Your task to perform on an android device: Search for amazon basics triple a on costco, select the first entry, and add it to the cart. Image 0: 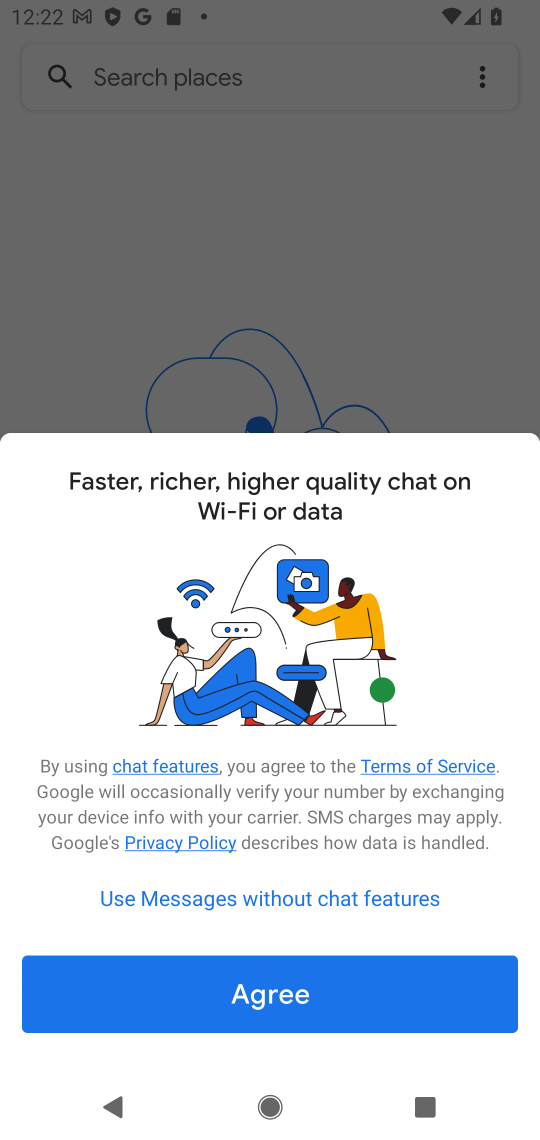
Step 0: press home button
Your task to perform on an android device: Search for amazon basics triple a on costco, select the first entry, and add it to the cart. Image 1: 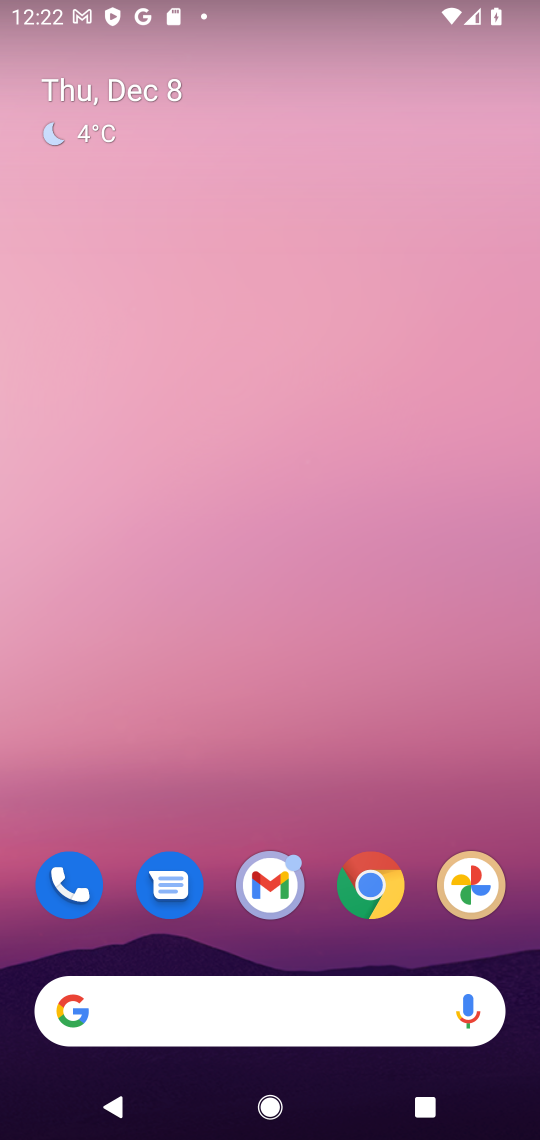
Step 1: click (366, 869)
Your task to perform on an android device: Search for amazon basics triple a on costco, select the first entry, and add it to the cart. Image 2: 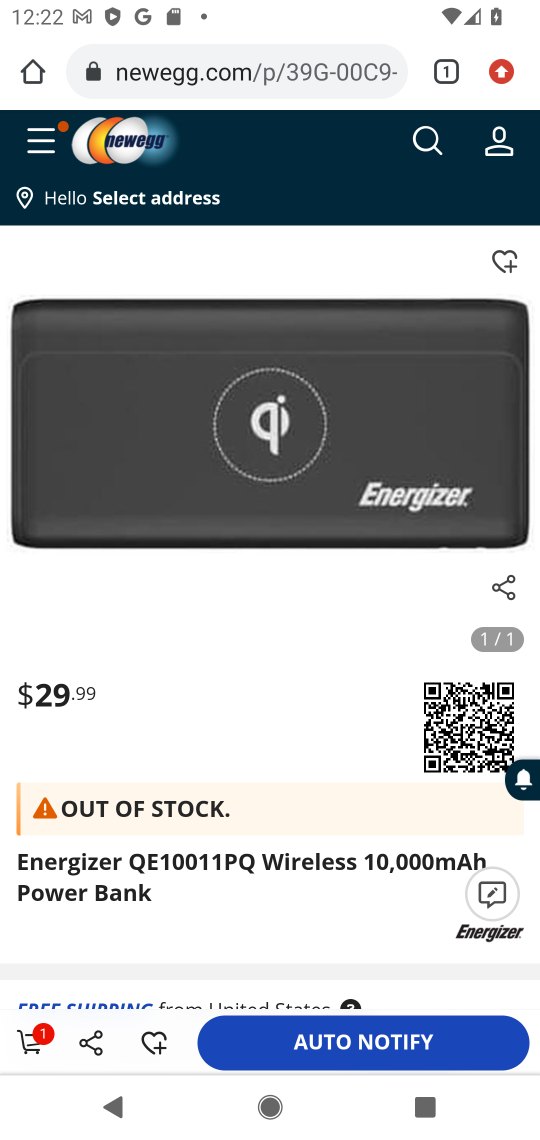
Step 2: click (274, 62)
Your task to perform on an android device: Search for amazon basics triple a on costco, select the first entry, and add it to the cart. Image 3: 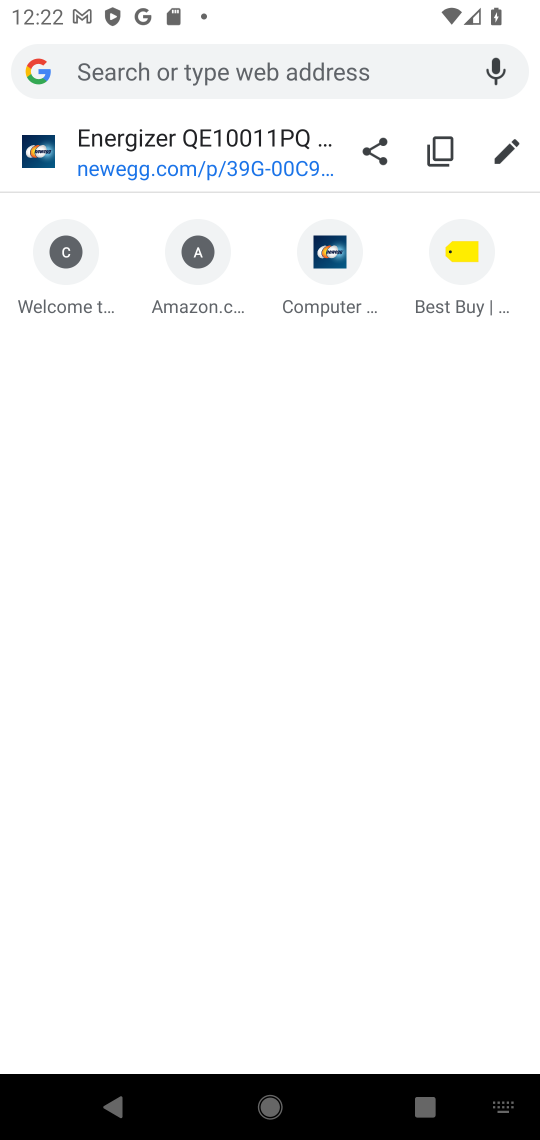
Step 3: type "COSTCO"
Your task to perform on an android device: Search for amazon basics triple a on costco, select the first entry, and add it to the cart. Image 4: 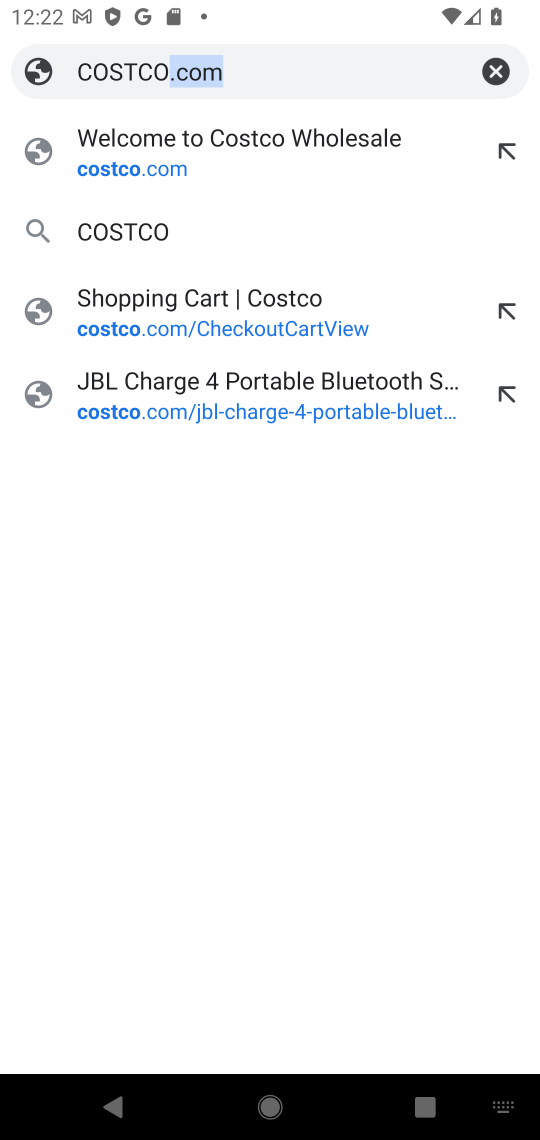
Step 4: click (208, 159)
Your task to perform on an android device: Search for amazon basics triple a on costco, select the first entry, and add it to the cart. Image 5: 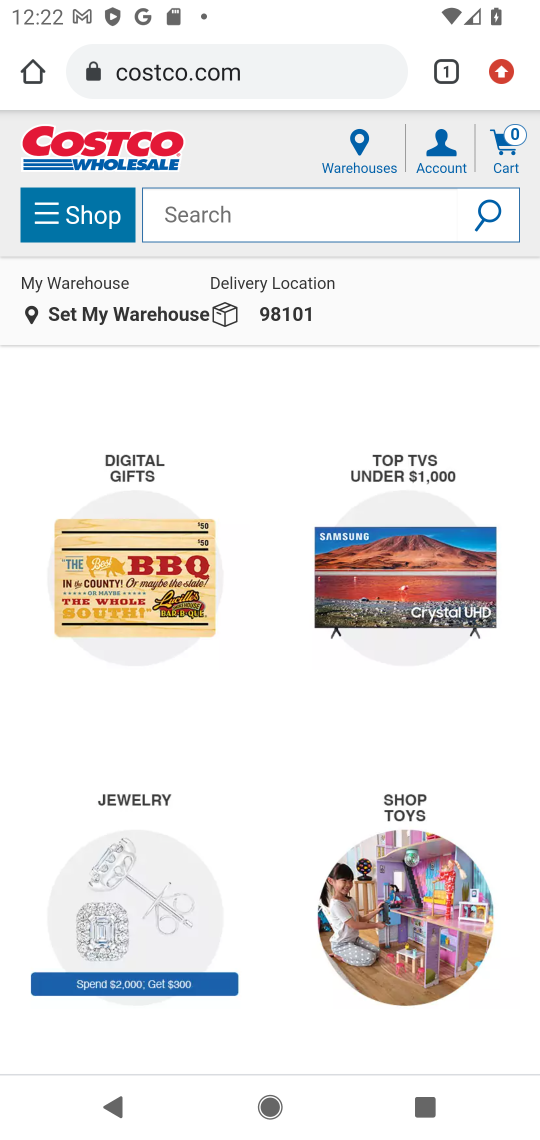
Step 5: click (255, 214)
Your task to perform on an android device: Search for amazon basics triple a on costco, select the first entry, and add it to the cart. Image 6: 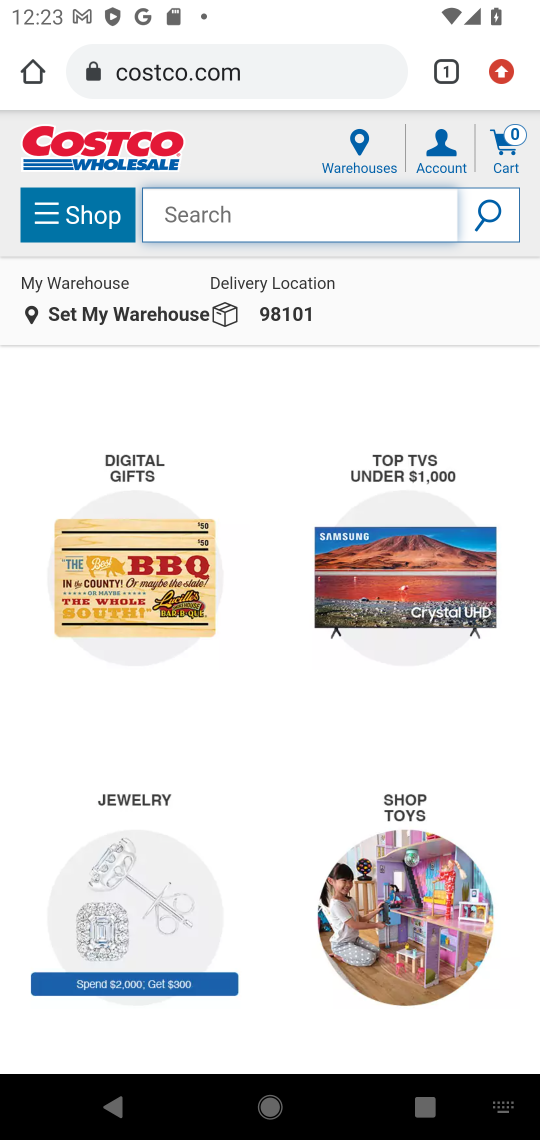
Step 6: type "AMAZON BASICS TRIPLE "
Your task to perform on an android device: Search for amazon basics triple a on costco, select the first entry, and add it to the cart. Image 7: 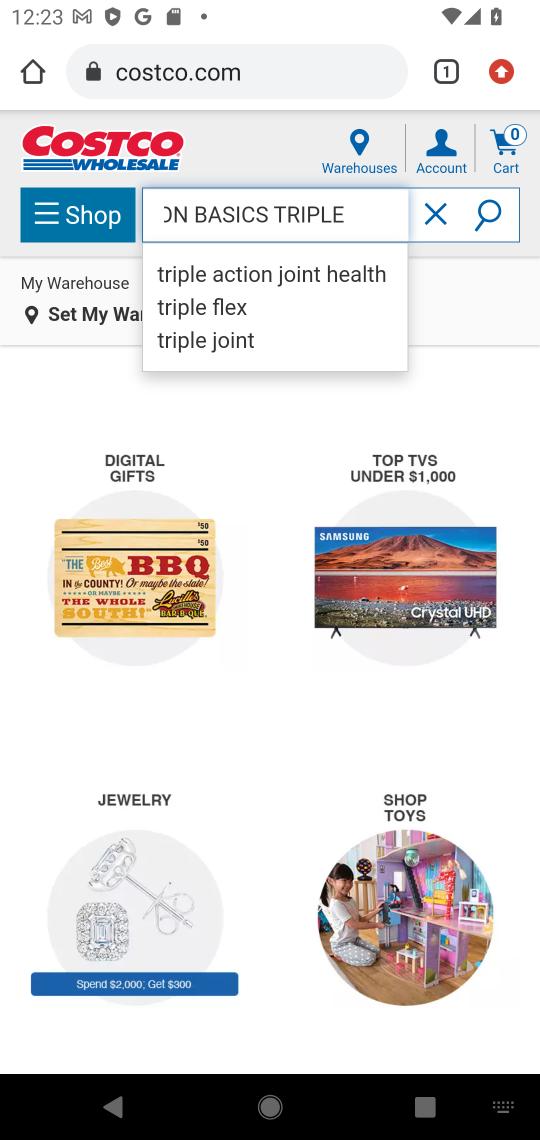
Step 7: click (272, 278)
Your task to perform on an android device: Search for amazon basics triple a on costco, select the first entry, and add it to the cart. Image 8: 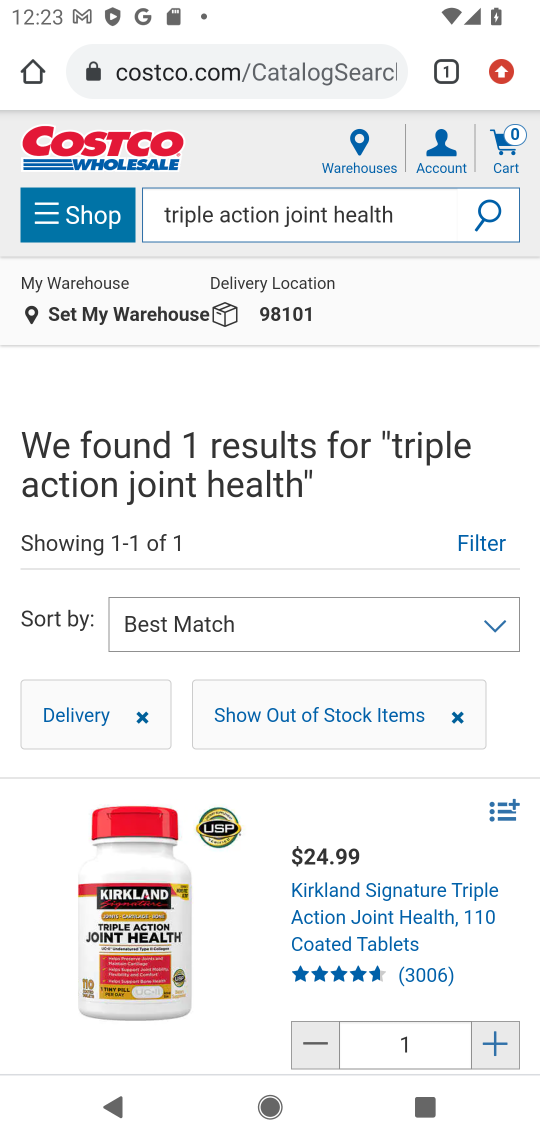
Step 8: click (154, 939)
Your task to perform on an android device: Search for amazon basics triple a on costco, select the first entry, and add it to the cart. Image 9: 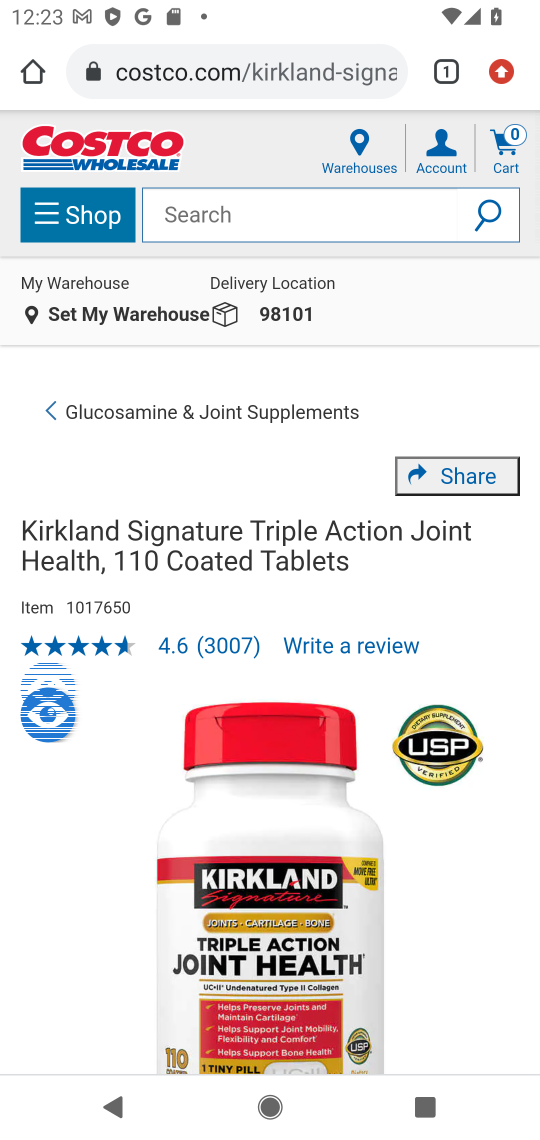
Step 9: drag from (342, 892) to (367, 285)
Your task to perform on an android device: Search for amazon basics triple a on costco, select the first entry, and add it to the cart. Image 10: 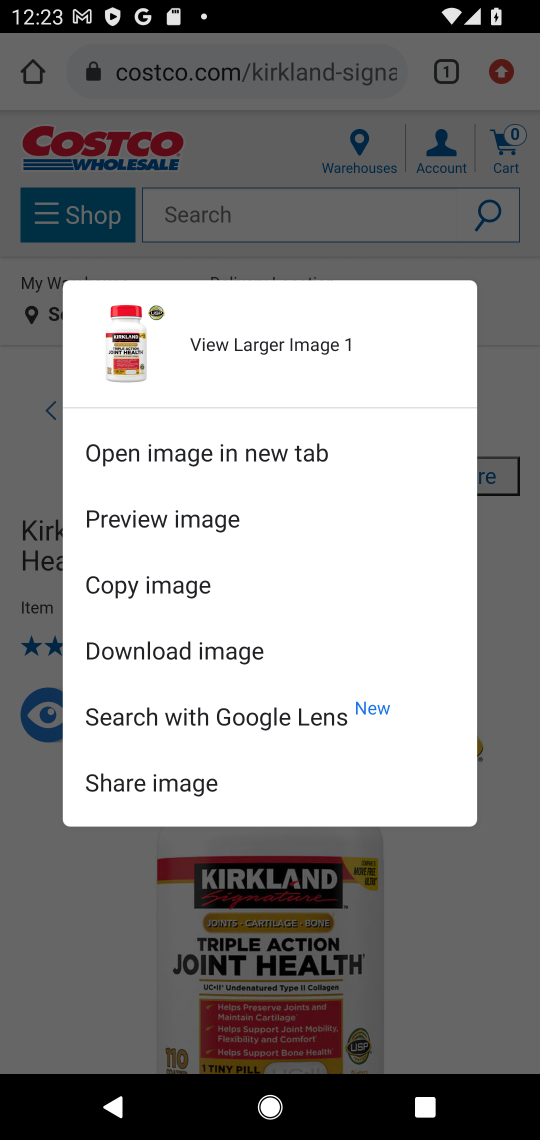
Step 10: click (508, 287)
Your task to perform on an android device: Search for amazon basics triple a on costco, select the first entry, and add it to the cart. Image 11: 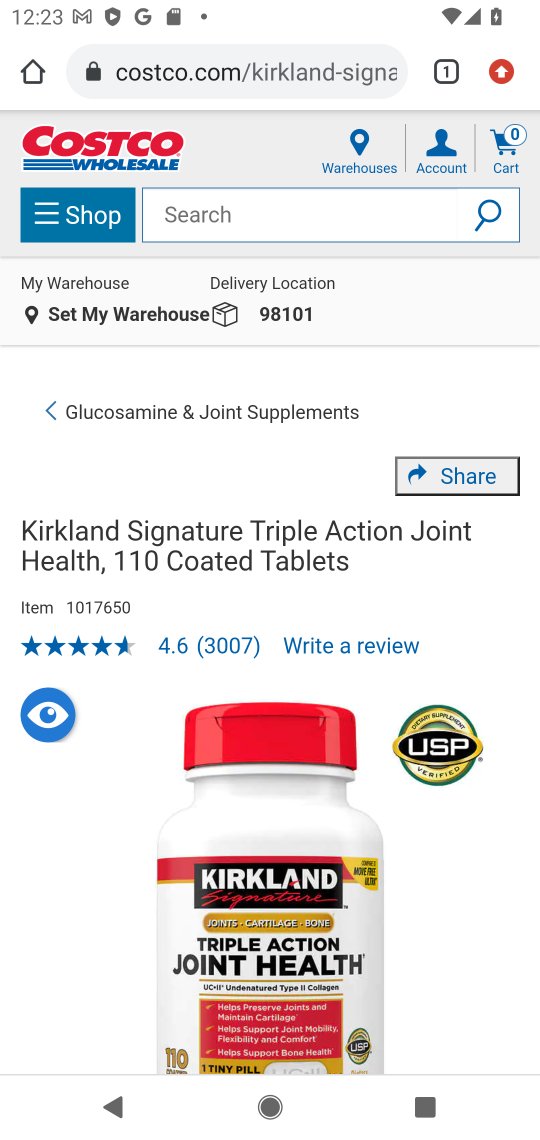
Step 11: drag from (479, 747) to (481, 172)
Your task to perform on an android device: Search for amazon basics triple a on costco, select the first entry, and add it to the cart. Image 12: 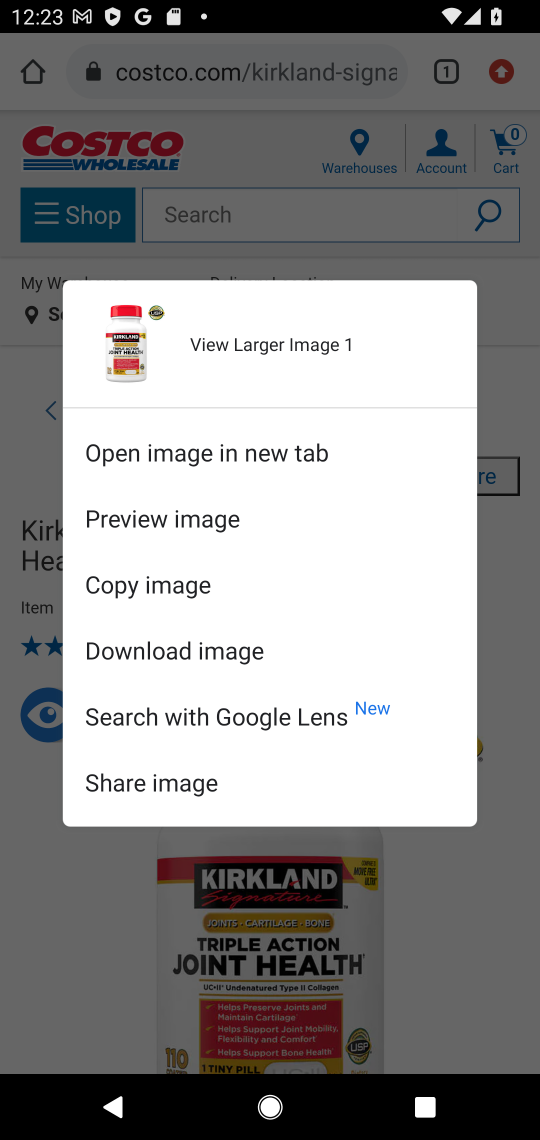
Step 12: click (500, 296)
Your task to perform on an android device: Search for amazon basics triple a on costco, select the first entry, and add it to the cart. Image 13: 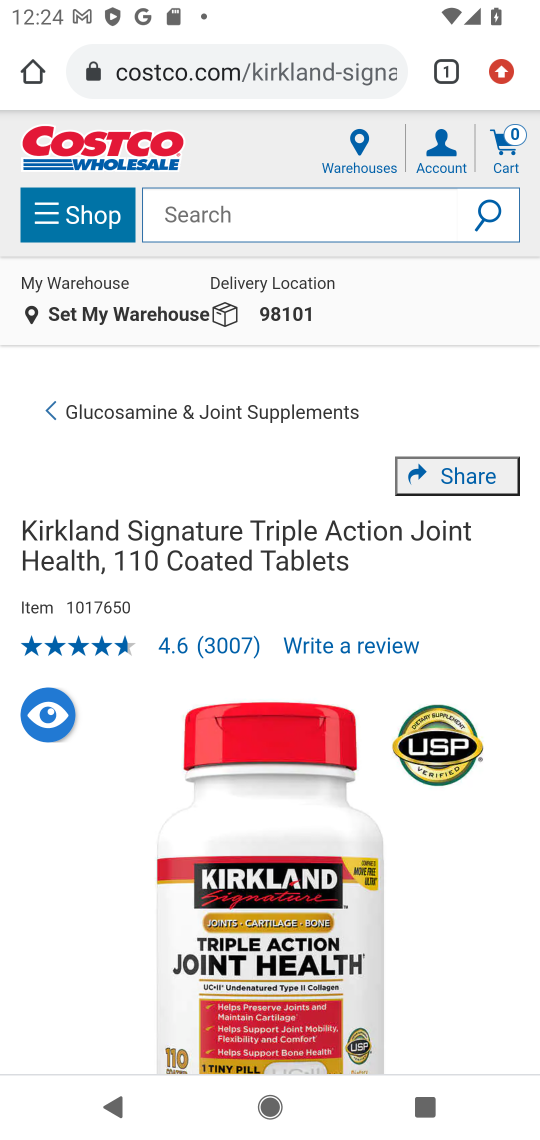
Step 13: drag from (494, 626) to (494, 215)
Your task to perform on an android device: Search for amazon basics triple a on costco, select the first entry, and add it to the cart. Image 14: 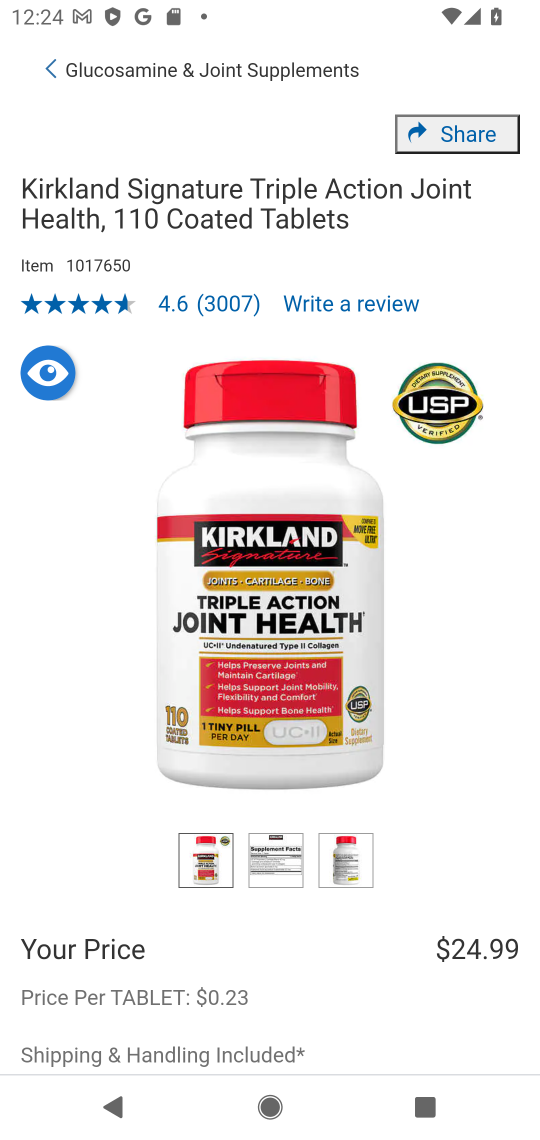
Step 14: drag from (457, 745) to (466, 203)
Your task to perform on an android device: Search for amazon basics triple a on costco, select the first entry, and add it to the cart. Image 15: 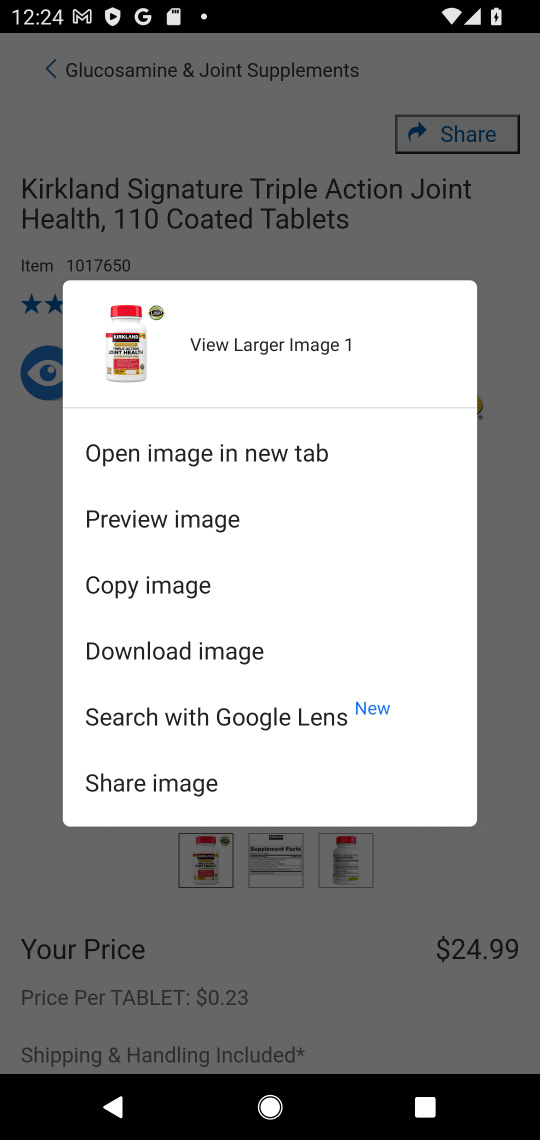
Step 15: click (475, 215)
Your task to perform on an android device: Search for amazon basics triple a on costco, select the first entry, and add it to the cart. Image 16: 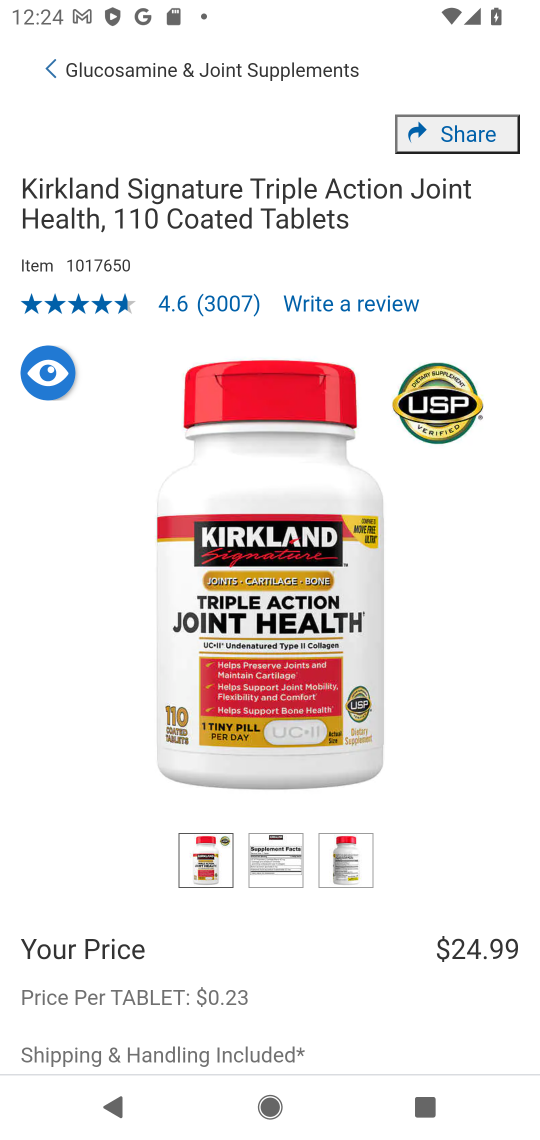
Step 16: drag from (481, 378) to (445, 56)
Your task to perform on an android device: Search for amazon basics triple a on costco, select the first entry, and add it to the cart. Image 17: 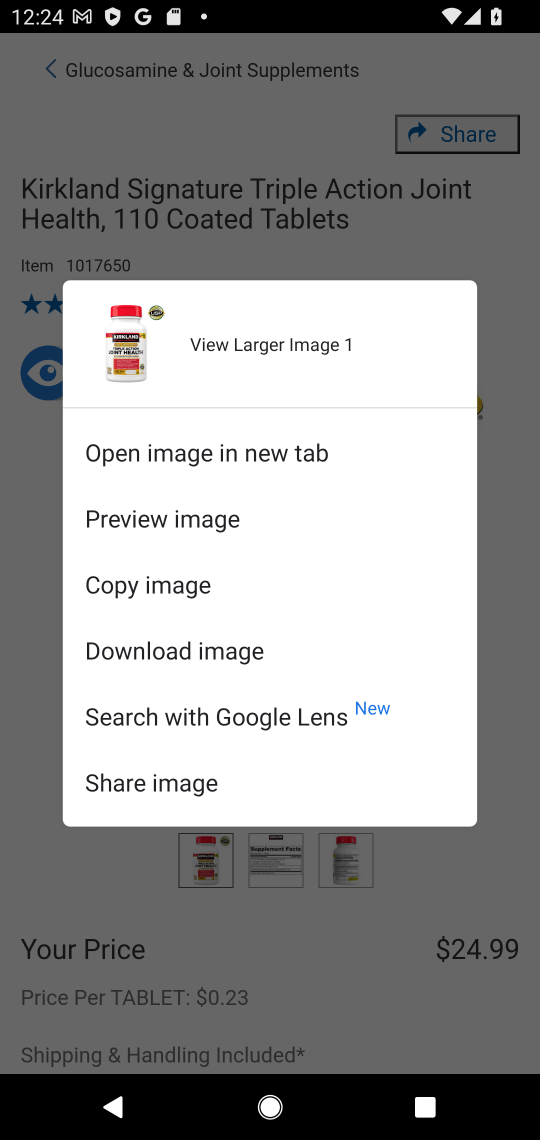
Step 17: click (473, 185)
Your task to perform on an android device: Search for amazon basics triple a on costco, select the first entry, and add it to the cart. Image 18: 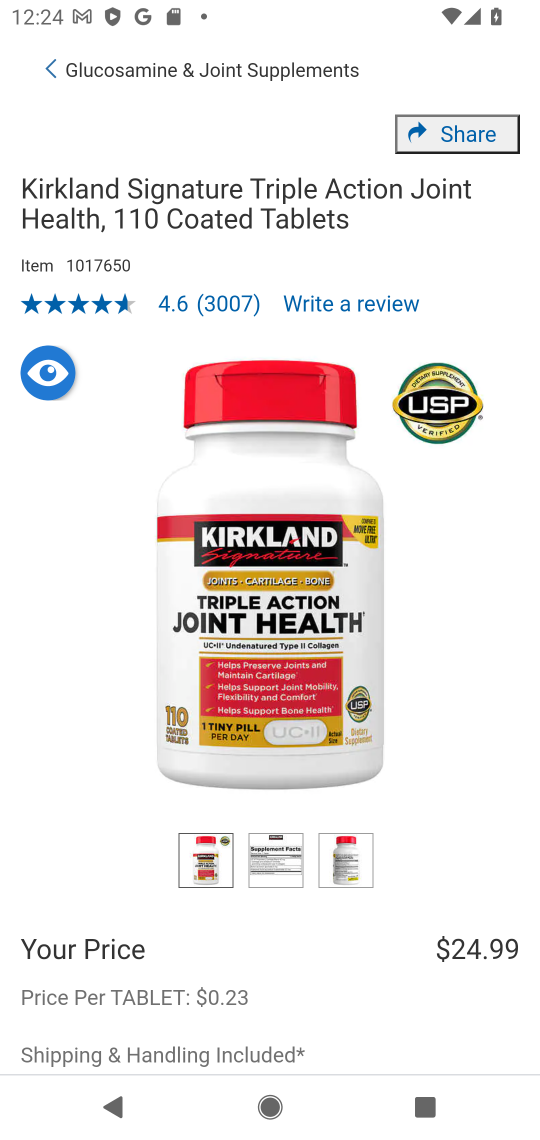
Step 18: drag from (372, 942) to (436, 108)
Your task to perform on an android device: Search for amazon basics triple a on costco, select the first entry, and add it to the cart. Image 19: 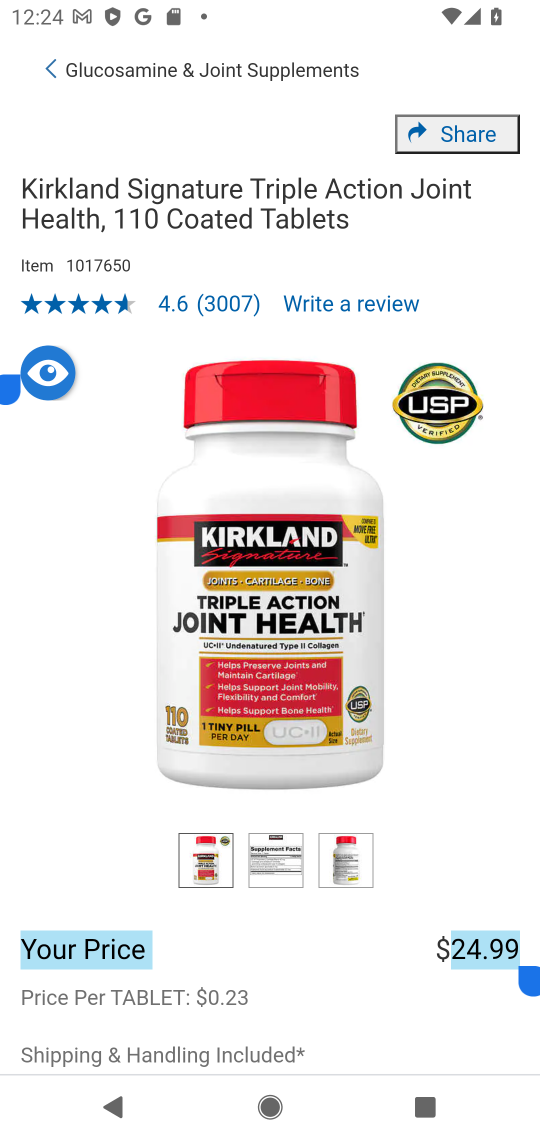
Step 19: click (484, 283)
Your task to perform on an android device: Search for amazon basics triple a on costco, select the first entry, and add it to the cart. Image 20: 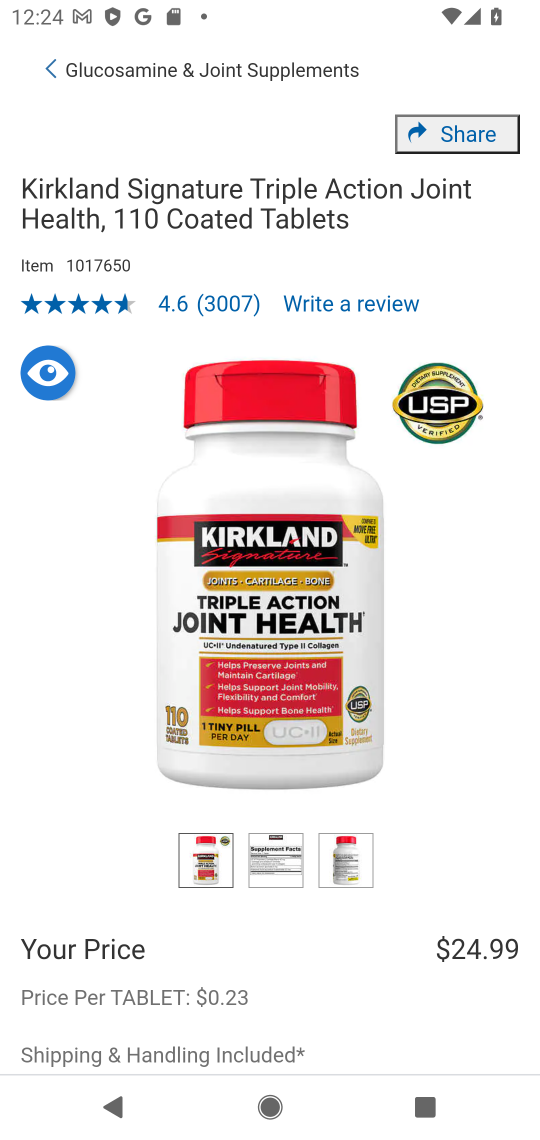
Step 20: drag from (353, 1005) to (362, 408)
Your task to perform on an android device: Search for amazon basics triple a on costco, select the first entry, and add it to the cart. Image 21: 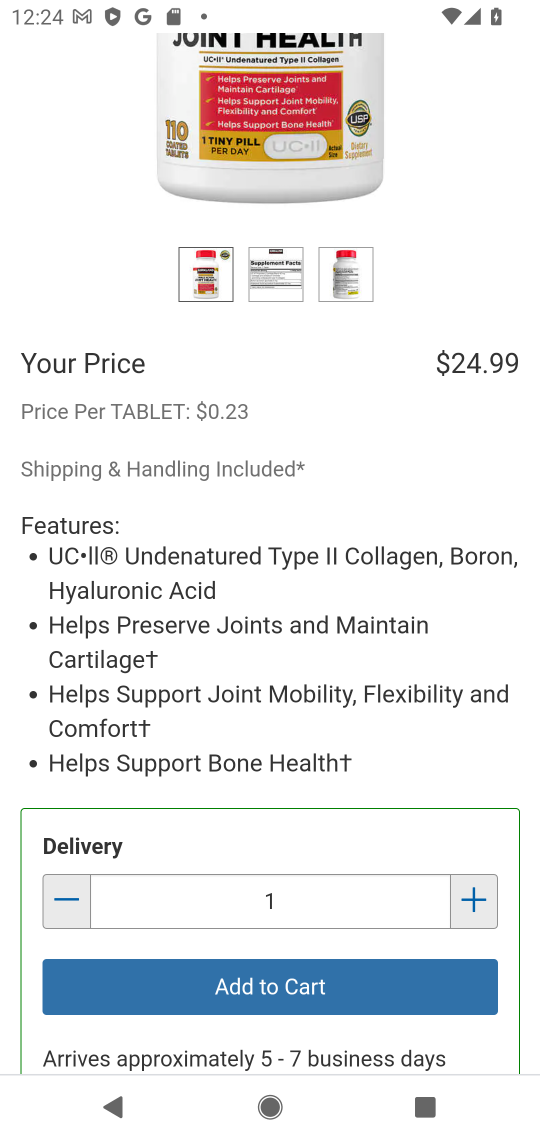
Step 21: click (303, 993)
Your task to perform on an android device: Search for amazon basics triple a on costco, select the first entry, and add it to the cart. Image 22: 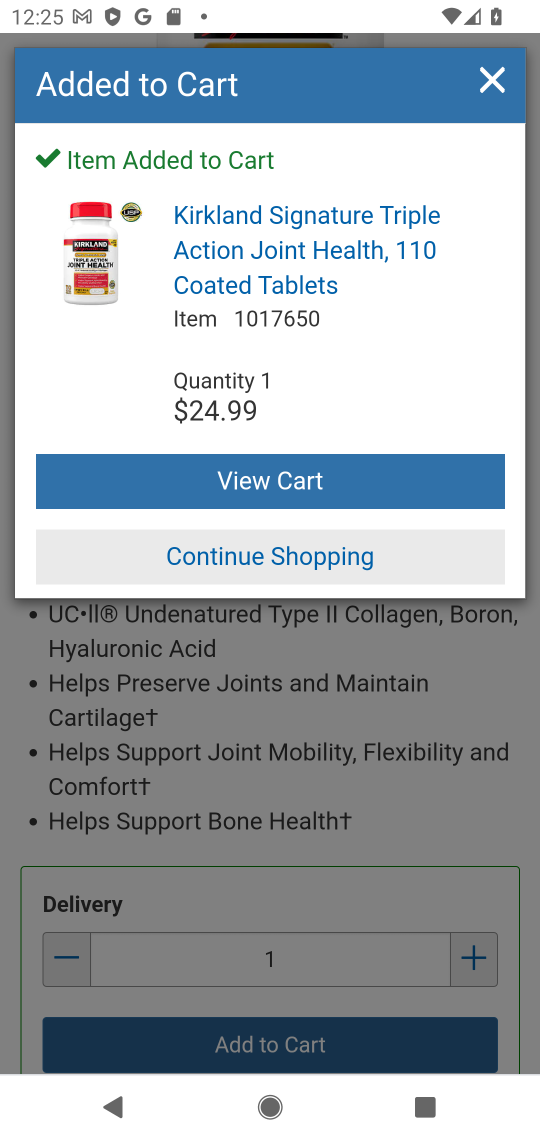
Step 22: click (483, 91)
Your task to perform on an android device: Search for amazon basics triple a on costco, select the first entry, and add it to the cart. Image 23: 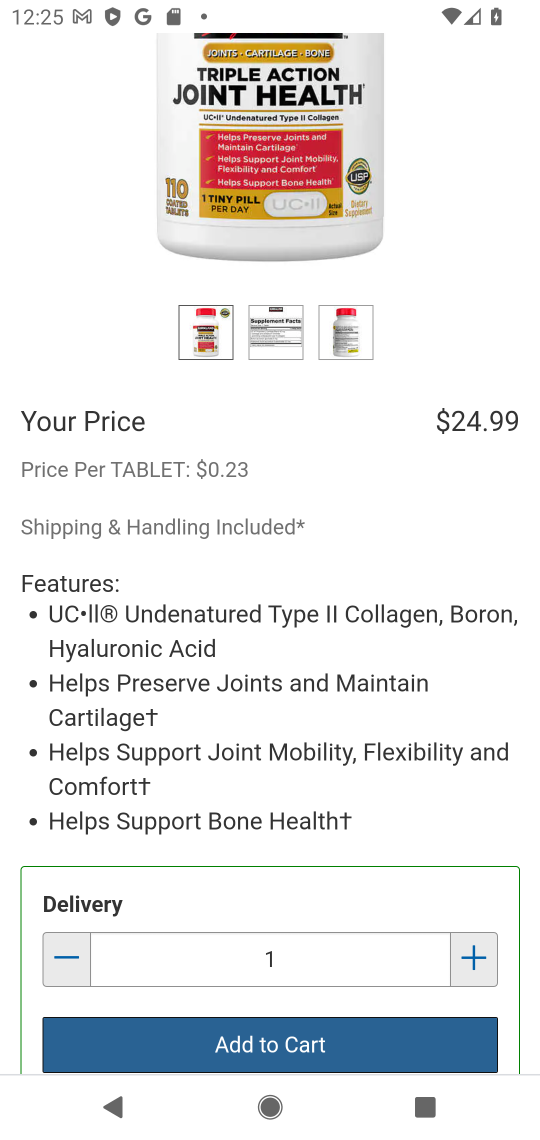
Step 23: task complete